Your task to perform on an android device: Open Google Maps Image 0: 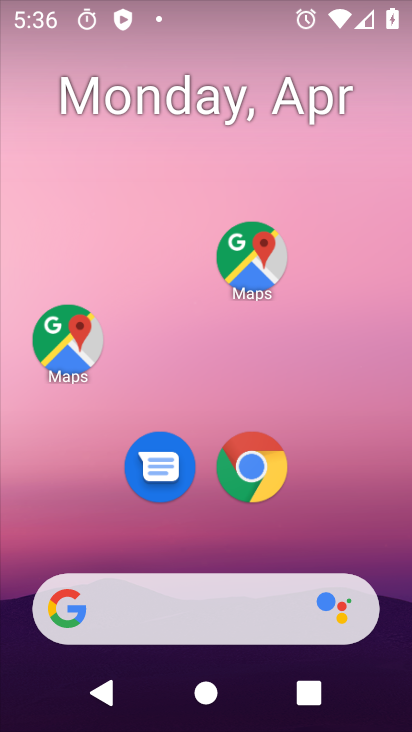
Step 0: click (260, 8)
Your task to perform on an android device: Open Google Maps Image 1: 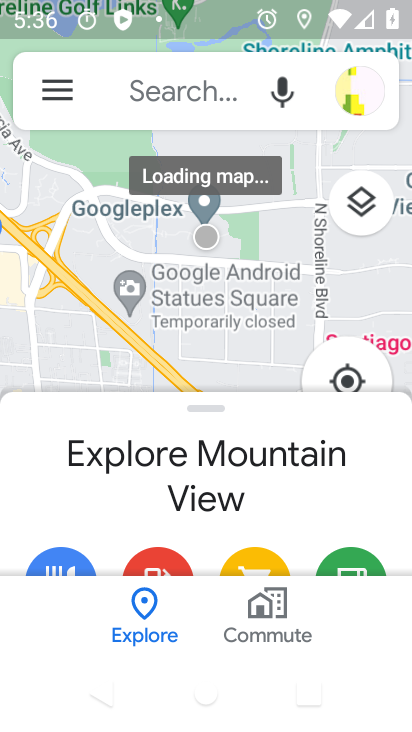
Step 1: task complete